Your task to perform on an android device: Is it going to rain tomorrow? Image 0: 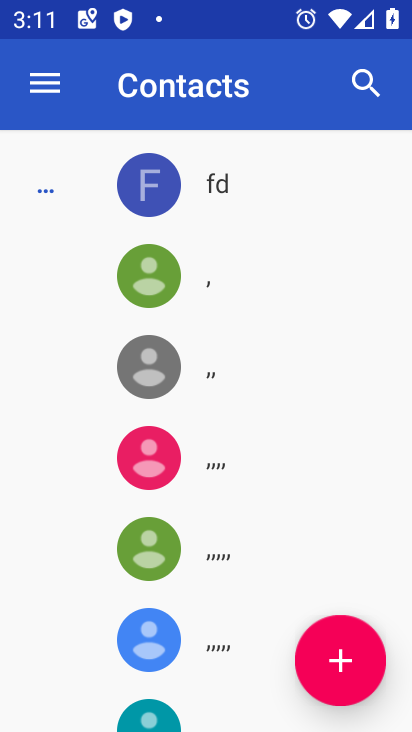
Step 0: press home button
Your task to perform on an android device: Is it going to rain tomorrow? Image 1: 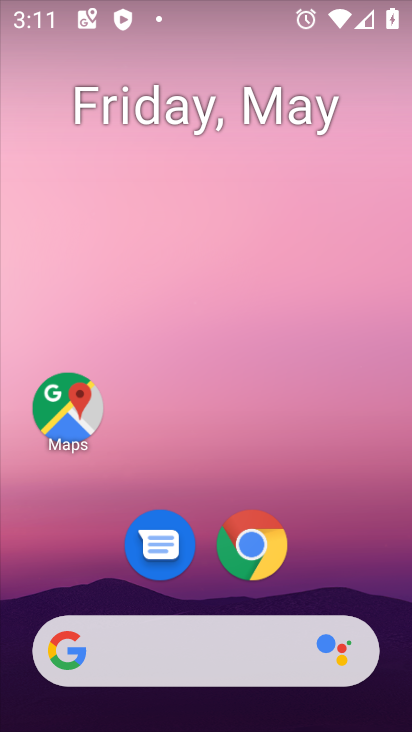
Step 1: click (176, 652)
Your task to perform on an android device: Is it going to rain tomorrow? Image 2: 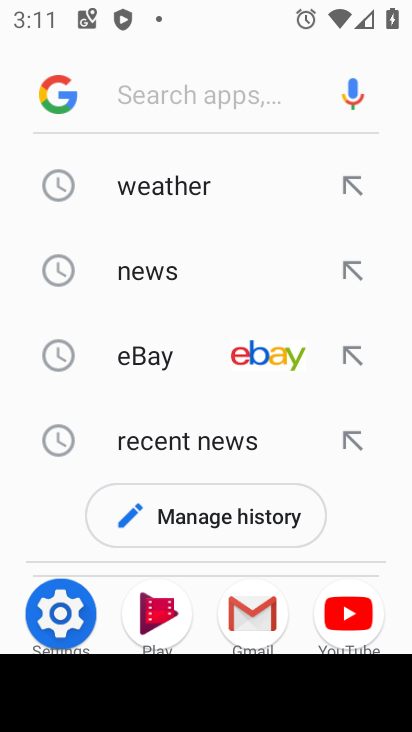
Step 2: click (199, 190)
Your task to perform on an android device: Is it going to rain tomorrow? Image 3: 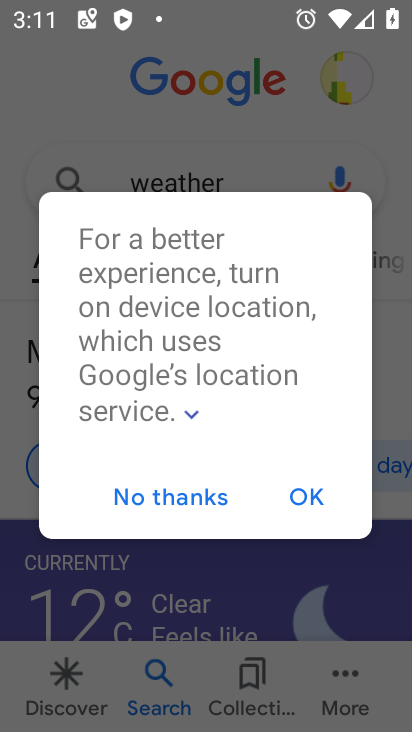
Step 3: click (309, 487)
Your task to perform on an android device: Is it going to rain tomorrow? Image 4: 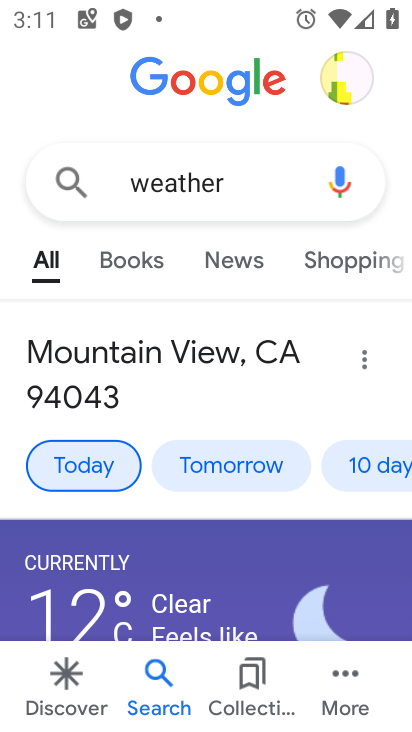
Step 4: task complete